Your task to perform on an android device: delete browsing data in the chrome app Image 0: 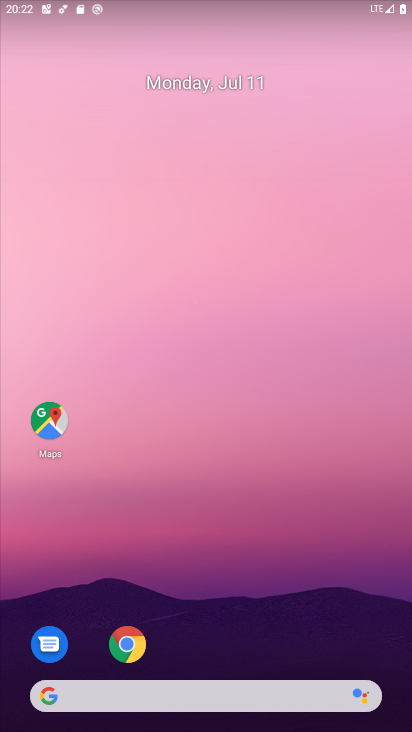
Step 0: drag from (192, 661) to (115, 90)
Your task to perform on an android device: delete browsing data in the chrome app Image 1: 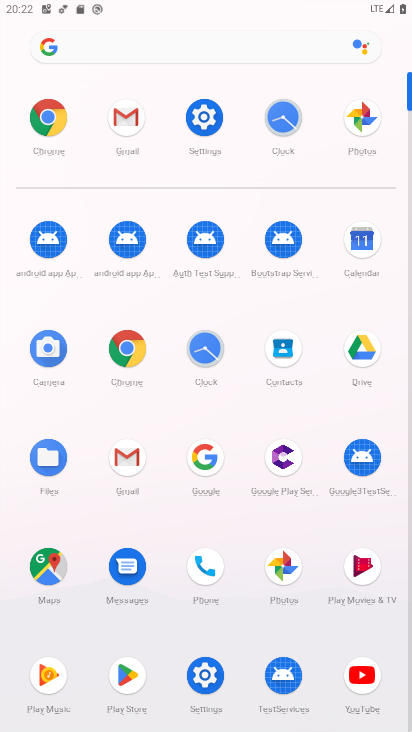
Step 1: click (127, 351)
Your task to perform on an android device: delete browsing data in the chrome app Image 2: 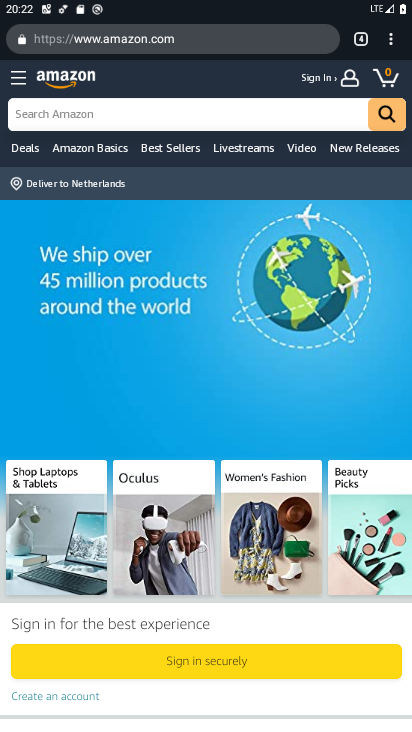
Step 2: click (390, 39)
Your task to perform on an android device: delete browsing data in the chrome app Image 3: 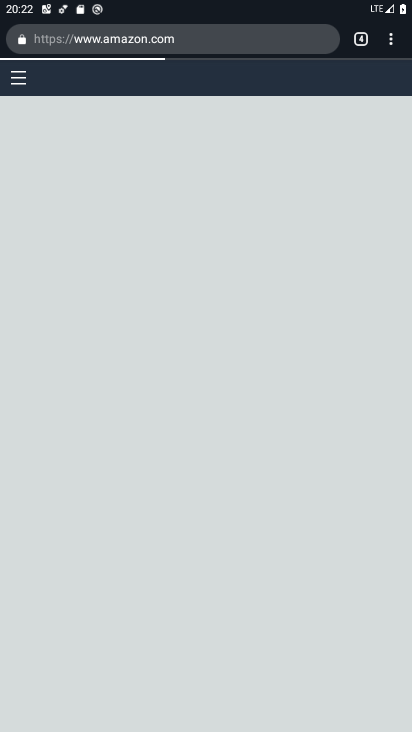
Step 3: click (390, 39)
Your task to perform on an android device: delete browsing data in the chrome app Image 4: 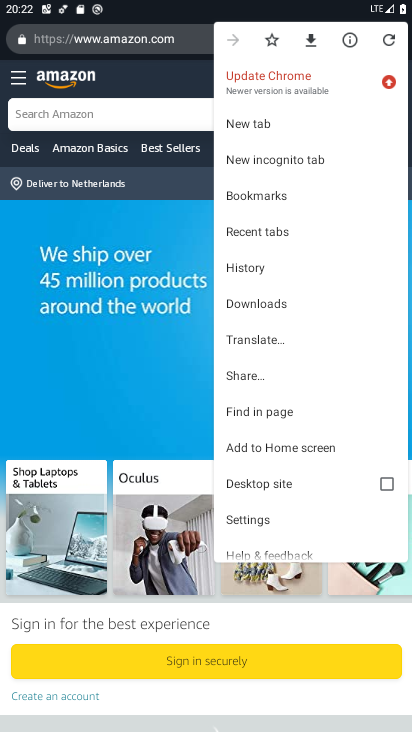
Step 4: click (267, 523)
Your task to perform on an android device: delete browsing data in the chrome app Image 5: 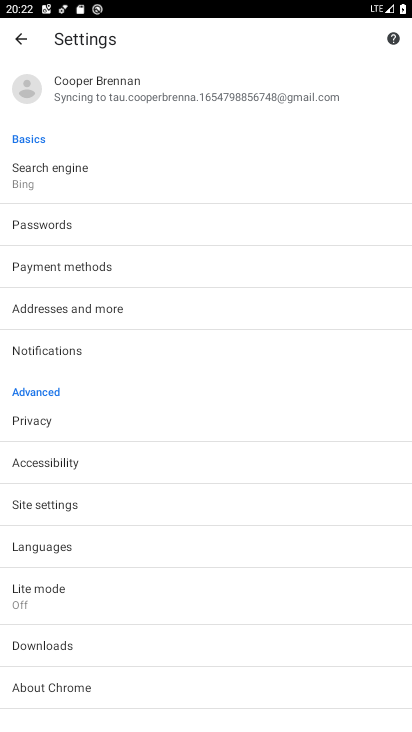
Step 5: click (44, 427)
Your task to perform on an android device: delete browsing data in the chrome app Image 6: 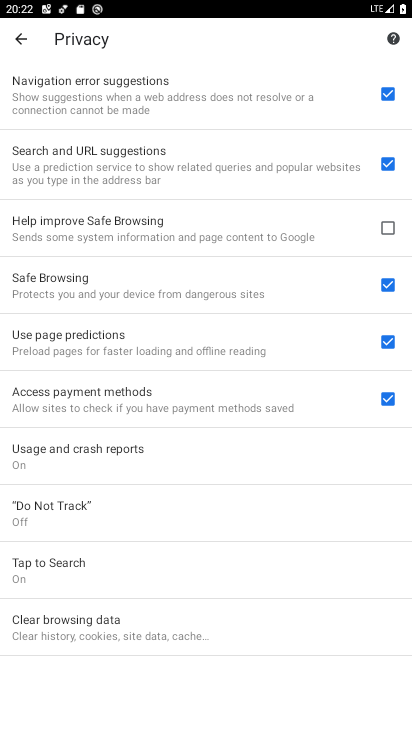
Step 6: click (158, 634)
Your task to perform on an android device: delete browsing data in the chrome app Image 7: 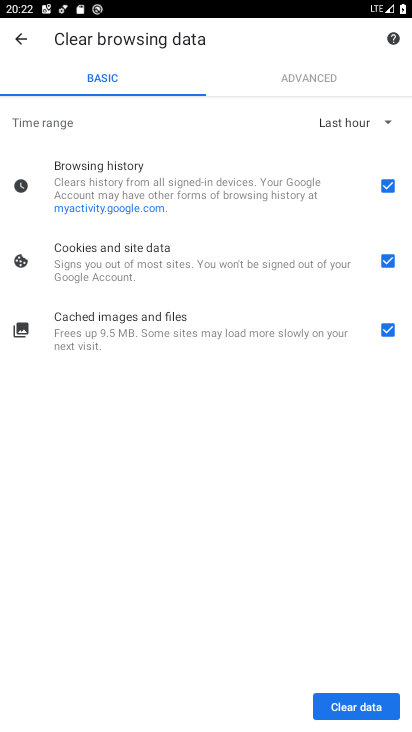
Step 7: click (348, 699)
Your task to perform on an android device: delete browsing data in the chrome app Image 8: 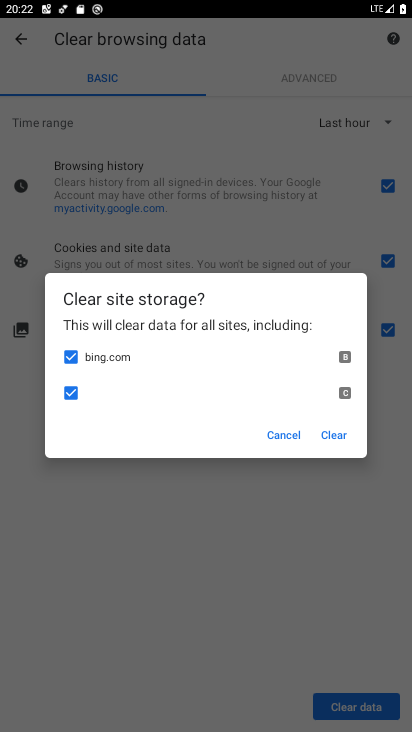
Step 8: click (337, 436)
Your task to perform on an android device: delete browsing data in the chrome app Image 9: 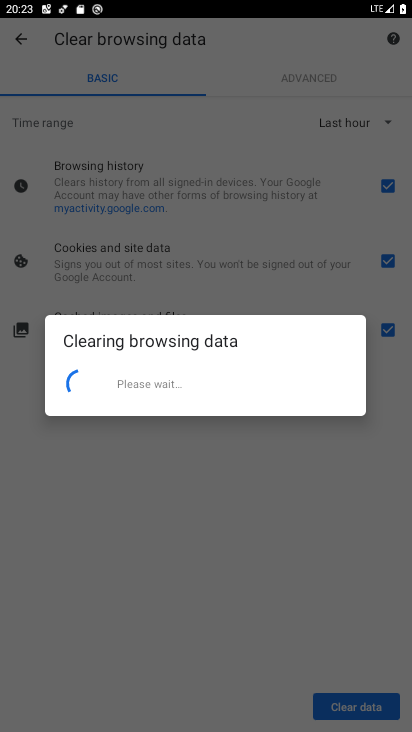
Step 9: task complete